Your task to perform on an android device: Search for vegetarian restaurants on Maps Image 0: 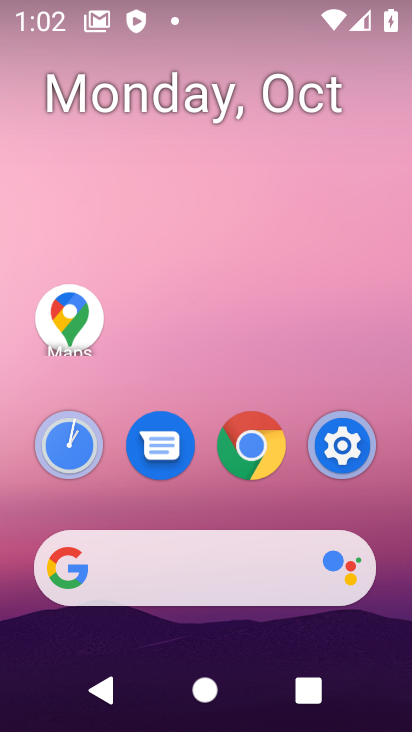
Step 0: click (72, 340)
Your task to perform on an android device: Search for vegetarian restaurants on Maps Image 1: 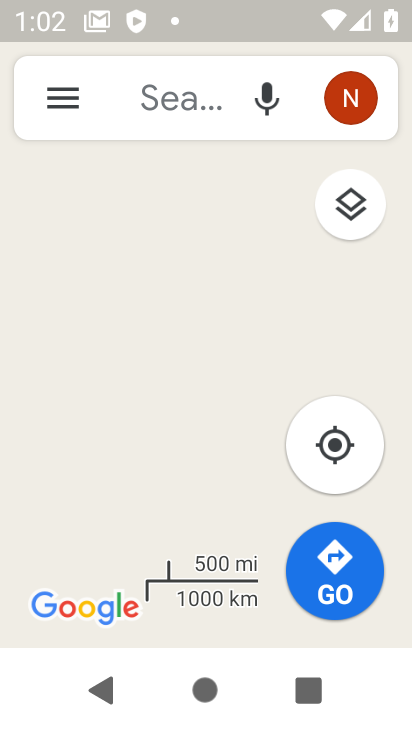
Step 1: click (201, 104)
Your task to perform on an android device: Search for vegetarian restaurants on Maps Image 2: 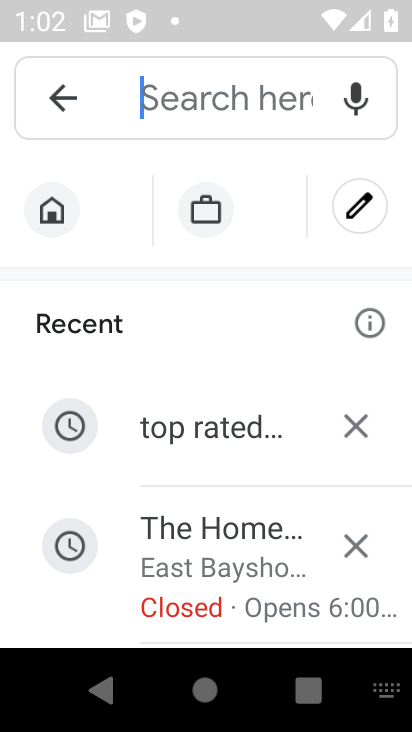
Step 2: type "vegetarian restaurants "
Your task to perform on an android device: Search for vegetarian restaurants on Maps Image 3: 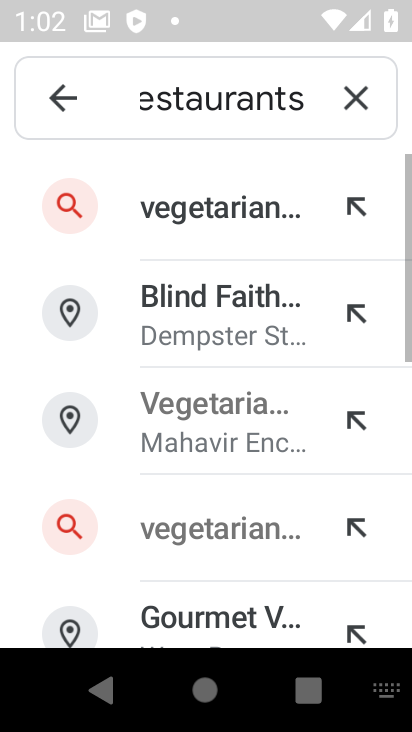
Step 3: type ""
Your task to perform on an android device: Search for vegetarian restaurants on Maps Image 4: 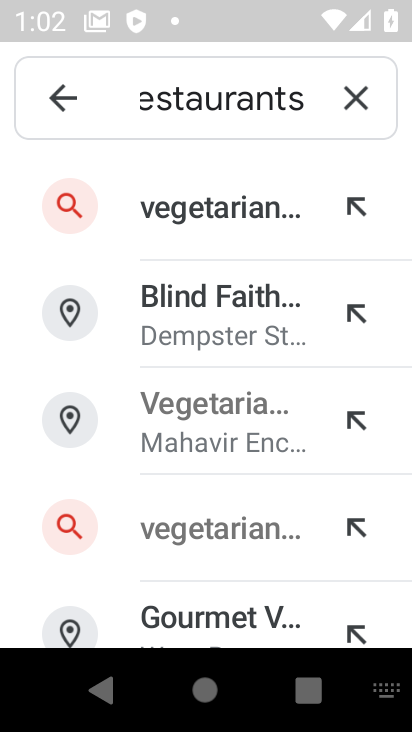
Step 4: click (259, 207)
Your task to perform on an android device: Search for vegetarian restaurants on Maps Image 5: 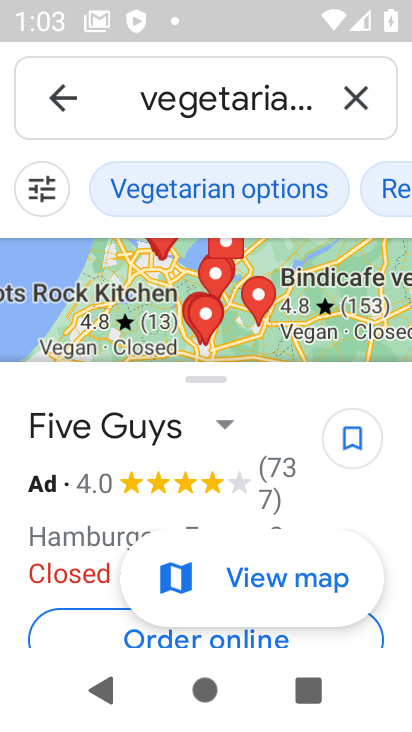
Step 5: task complete